Your task to perform on an android device: open chrome and create a bookmark for the current page Image 0: 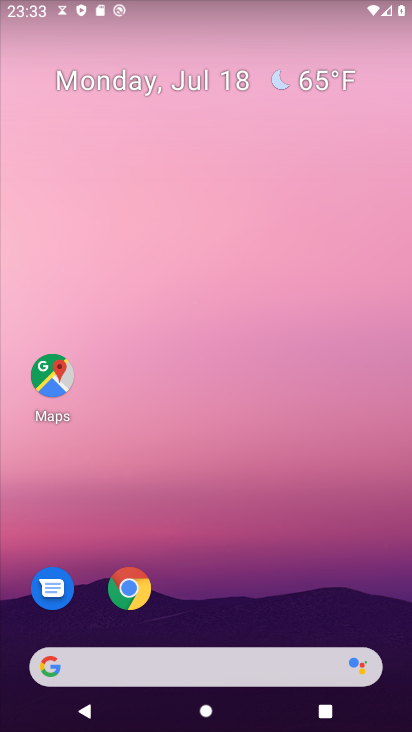
Step 0: press home button
Your task to perform on an android device: open chrome and create a bookmark for the current page Image 1: 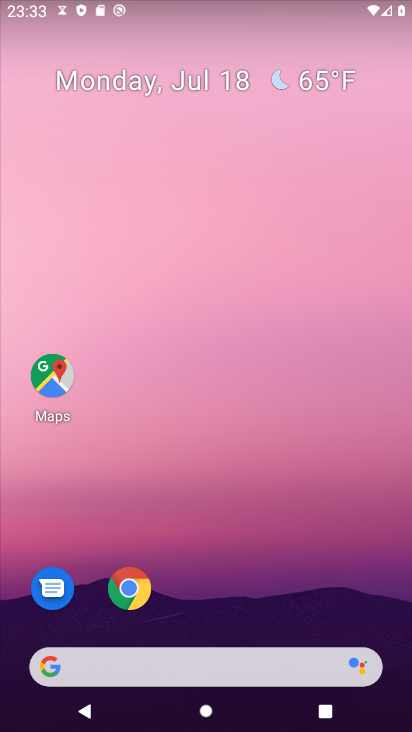
Step 1: click (132, 591)
Your task to perform on an android device: open chrome and create a bookmark for the current page Image 2: 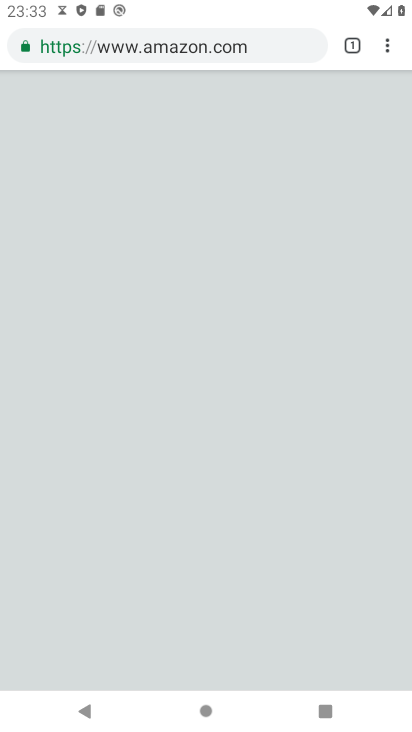
Step 2: click (386, 43)
Your task to perform on an android device: open chrome and create a bookmark for the current page Image 3: 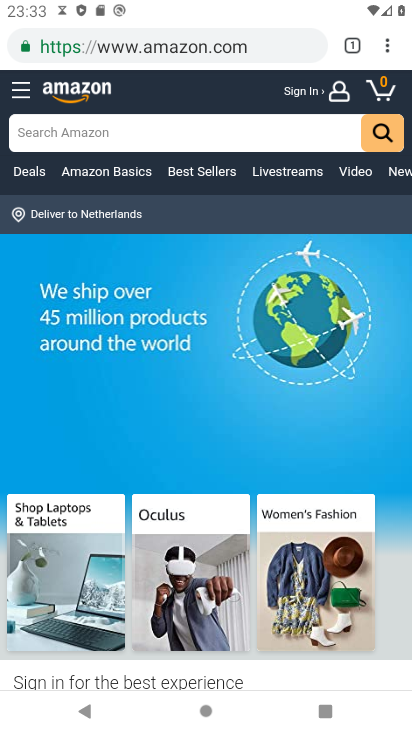
Step 3: click (386, 43)
Your task to perform on an android device: open chrome and create a bookmark for the current page Image 4: 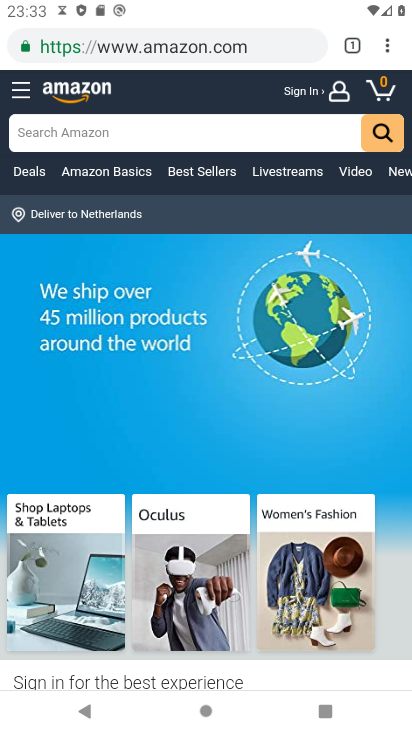
Step 4: drag from (386, 37) to (247, 40)
Your task to perform on an android device: open chrome and create a bookmark for the current page Image 5: 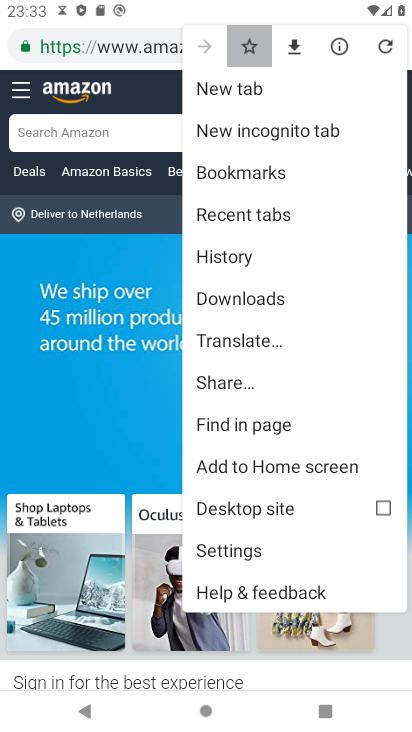
Step 5: click (247, 40)
Your task to perform on an android device: open chrome and create a bookmark for the current page Image 6: 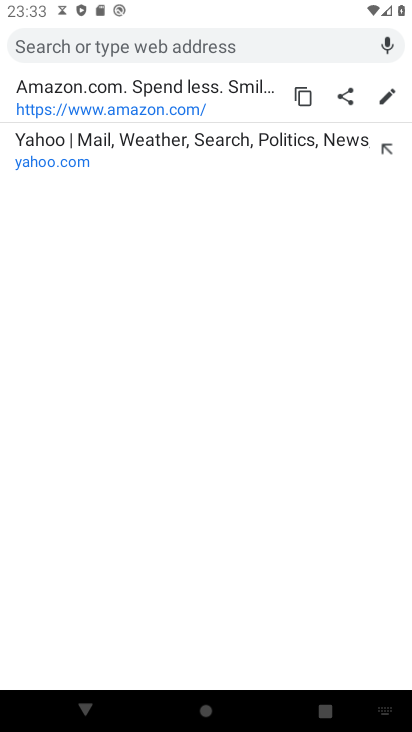
Step 6: task complete